Your task to perform on an android device: When is my next appointment? Image 0: 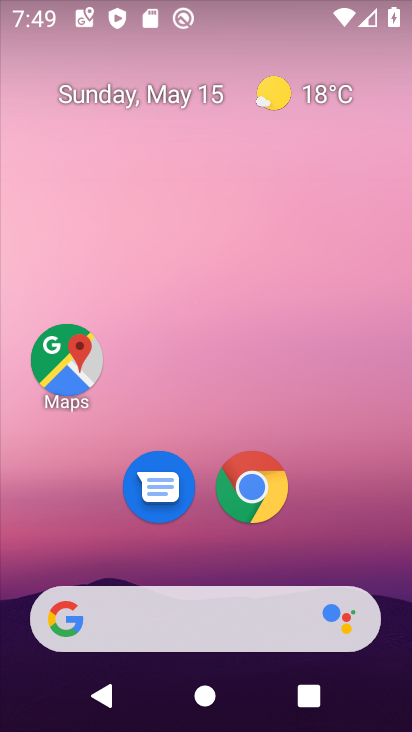
Step 0: drag from (400, 643) to (389, 217)
Your task to perform on an android device: When is my next appointment? Image 1: 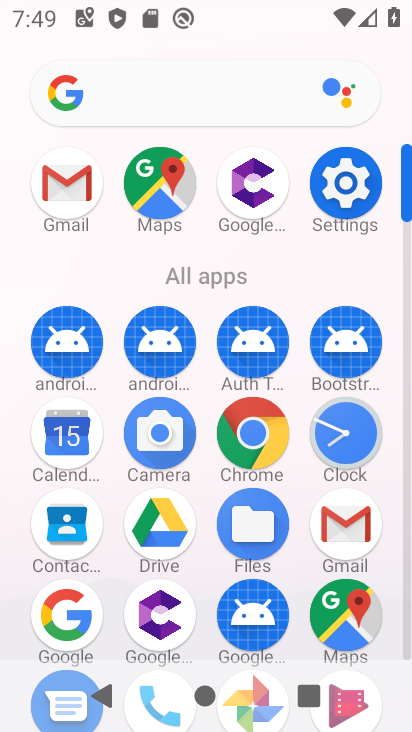
Step 1: click (74, 439)
Your task to perform on an android device: When is my next appointment? Image 2: 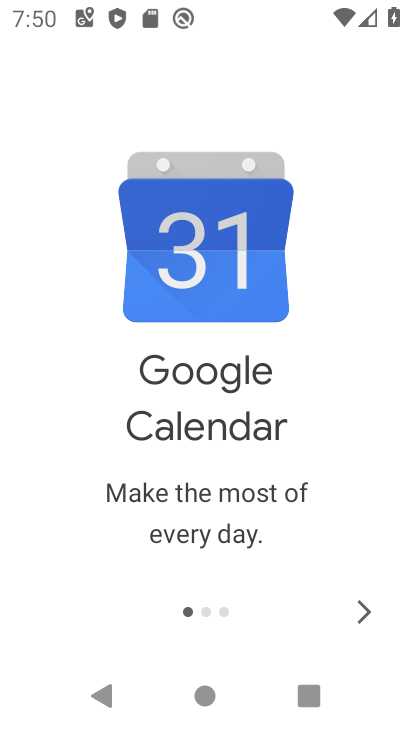
Step 2: click (364, 607)
Your task to perform on an android device: When is my next appointment? Image 3: 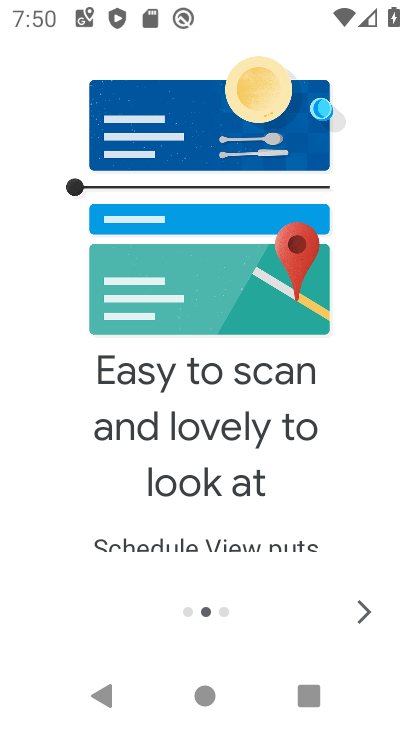
Step 3: click (364, 606)
Your task to perform on an android device: When is my next appointment? Image 4: 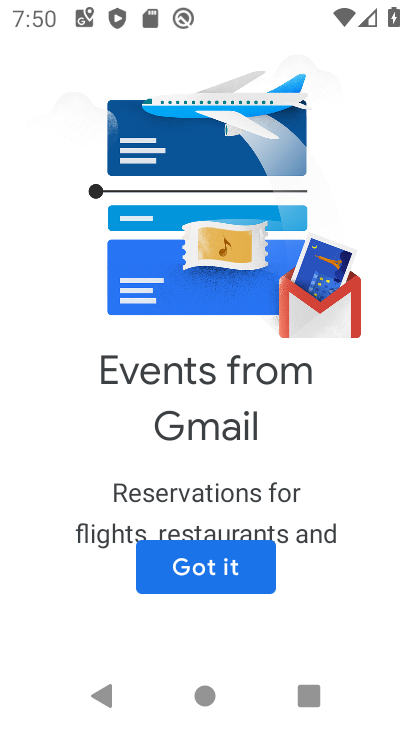
Step 4: click (364, 606)
Your task to perform on an android device: When is my next appointment? Image 5: 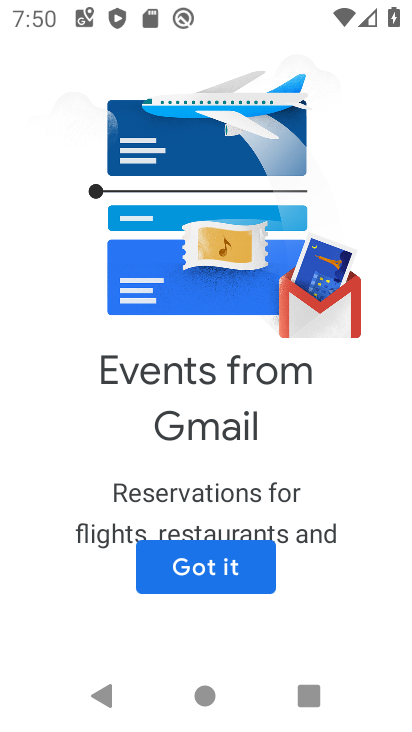
Step 5: click (237, 561)
Your task to perform on an android device: When is my next appointment? Image 6: 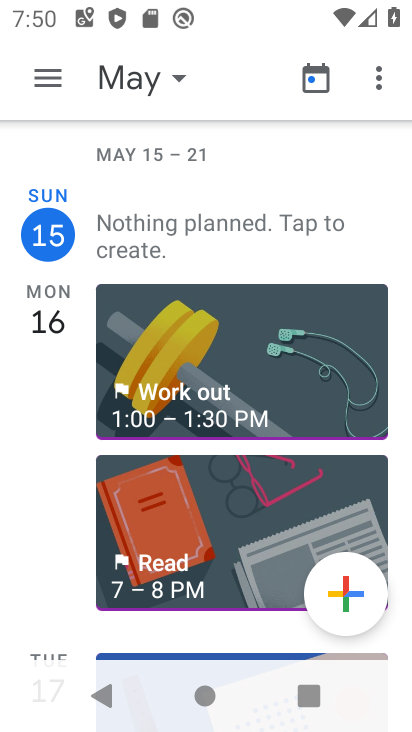
Step 6: click (54, 81)
Your task to perform on an android device: When is my next appointment? Image 7: 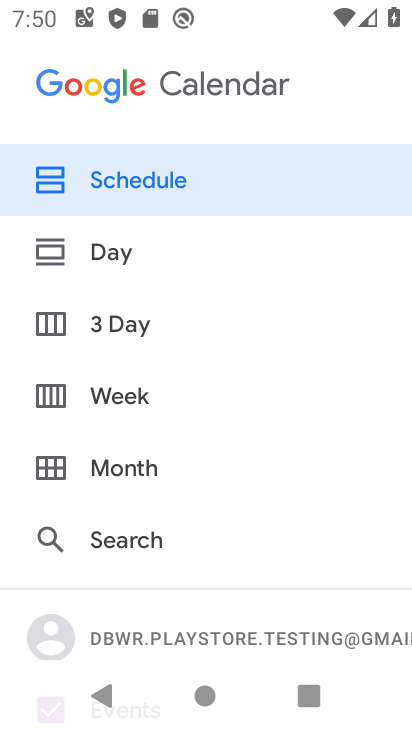
Step 7: drag from (255, 574) to (229, 346)
Your task to perform on an android device: When is my next appointment? Image 8: 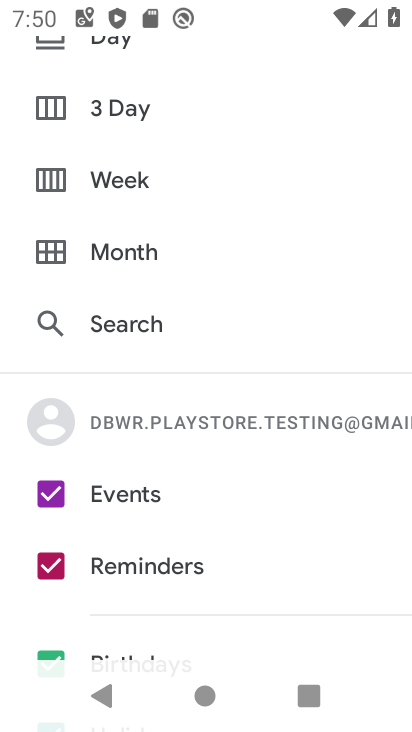
Step 8: drag from (261, 561) to (218, 381)
Your task to perform on an android device: When is my next appointment? Image 9: 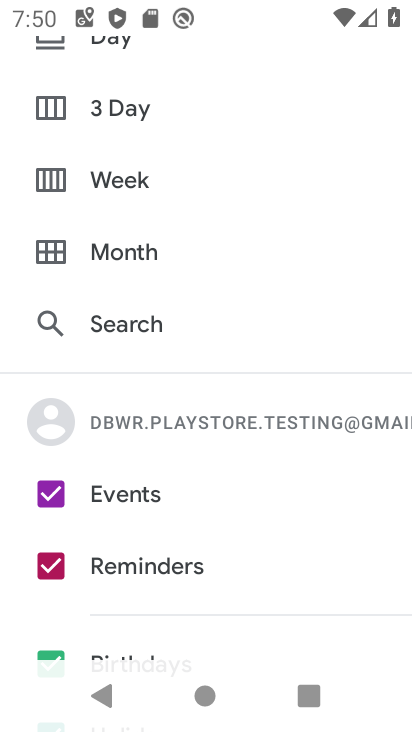
Step 9: drag from (252, 599) to (243, 396)
Your task to perform on an android device: When is my next appointment? Image 10: 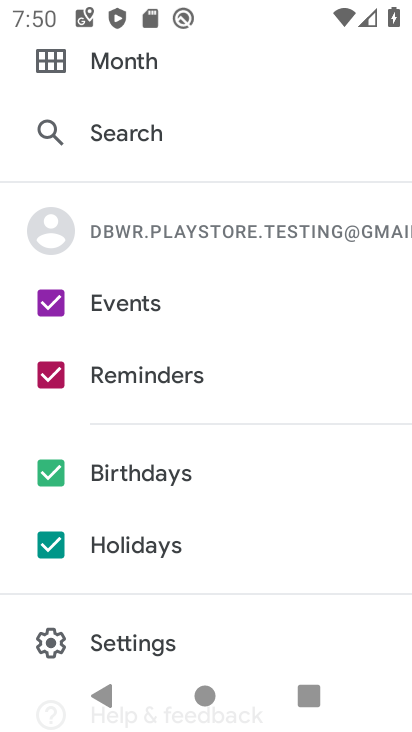
Step 10: click (44, 540)
Your task to perform on an android device: When is my next appointment? Image 11: 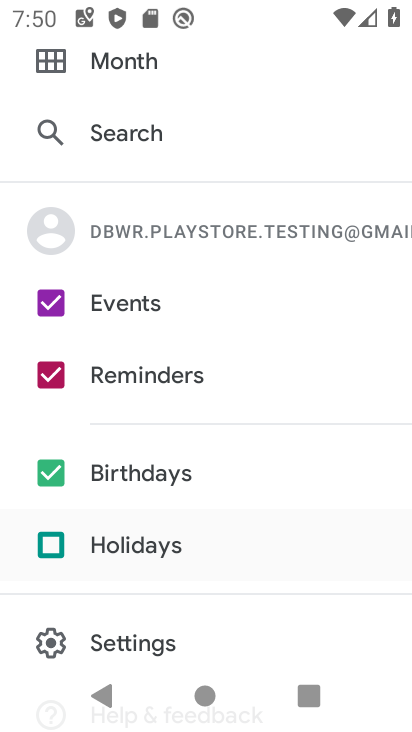
Step 11: click (52, 465)
Your task to perform on an android device: When is my next appointment? Image 12: 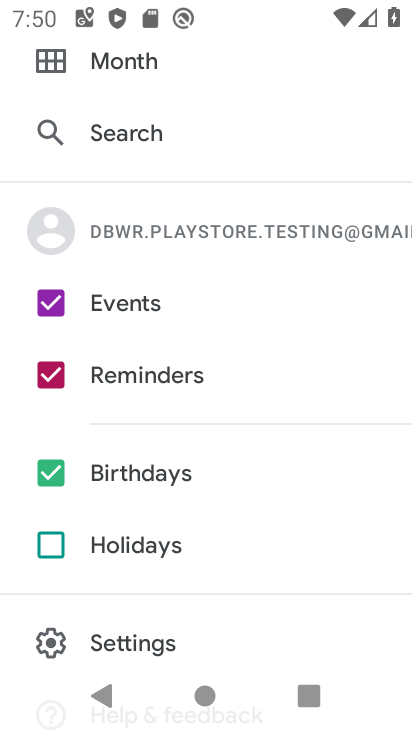
Step 12: click (59, 366)
Your task to perform on an android device: When is my next appointment? Image 13: 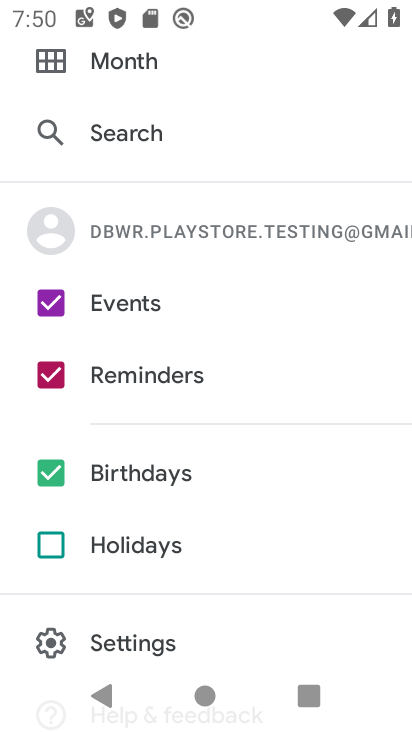
Step 13: click (39, 473)
Your task to perform on an android device: When is my next appointment? Image 14: 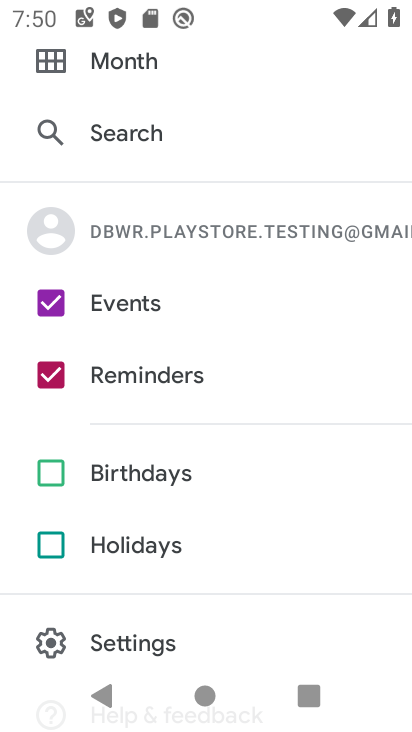
Step 14: click (54, 368)
Your task to perform on an android device: When is my next appointment? Image 15: 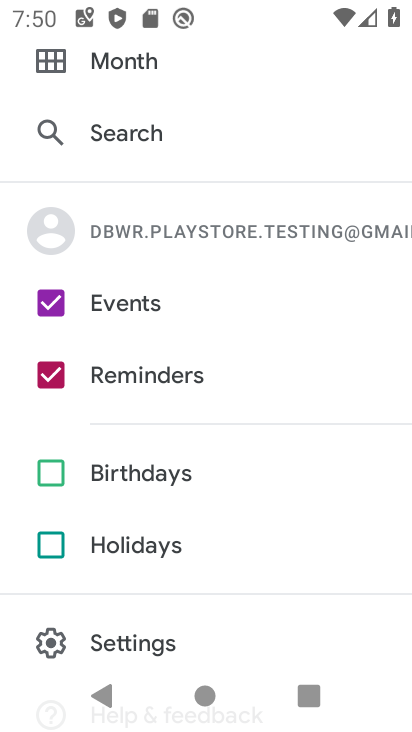
Step 15: click (48, 378)
Your task to perform on an android device: When is my next appointment? Image 16: 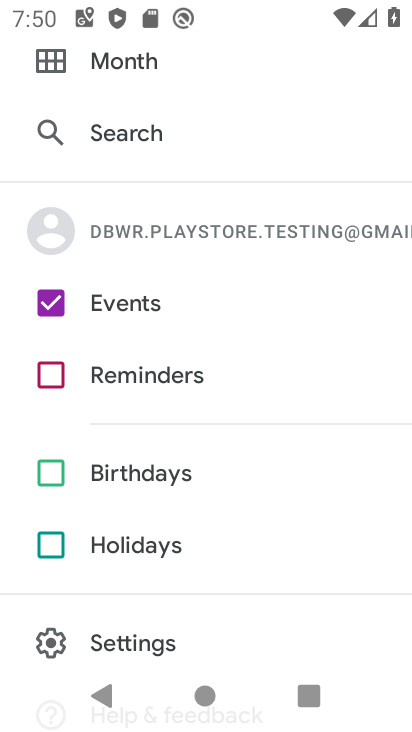
Step 16: task complete